Your task to perform on an android device: Go to wifi settings Image 0: 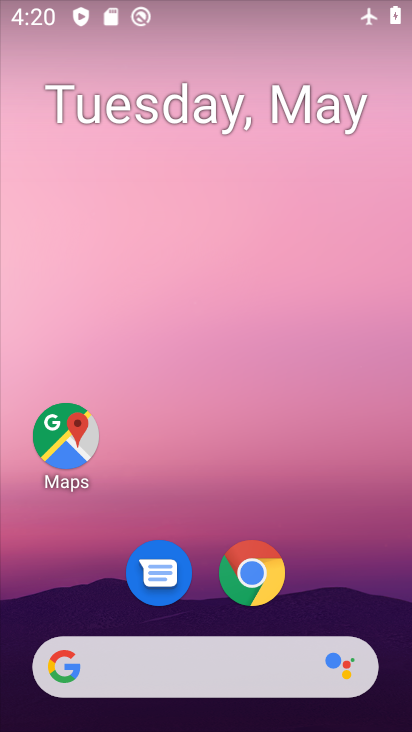
Step 0: drag from (310, 469) to (279, 168)
Your task to perform on an android device: Go to wifi settings Image 1: 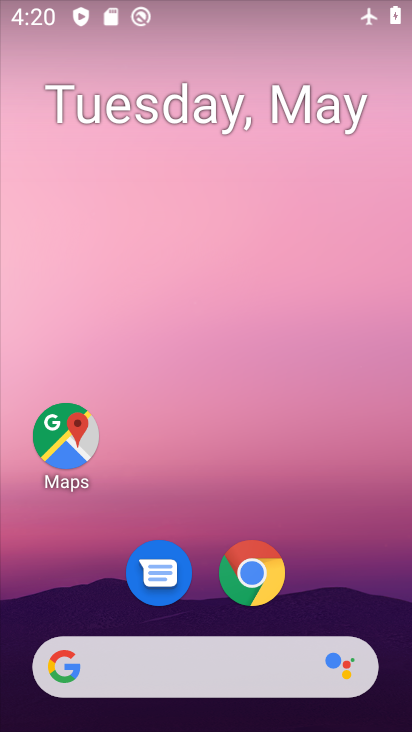
Step 1: drag from (303, 478) to (274, 104)
Your task to perform on an android device: Go to wifi settings Image 2: 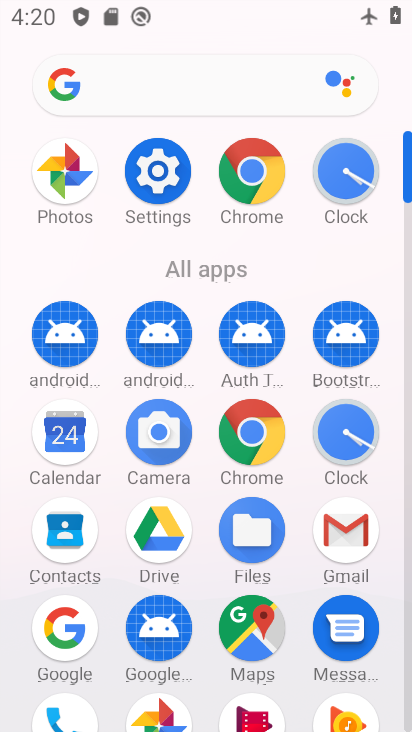
Step 2: click (164, 159)
Your task to perform on an android device: Go to wifi settings Image 3: 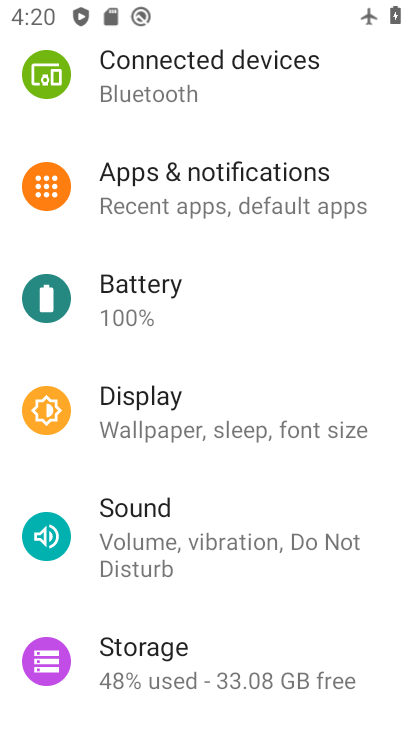
Step 3: drag from (232, 129) to (241, 499)
Your task to perform on an android device: Go to wifi settings Image 4: 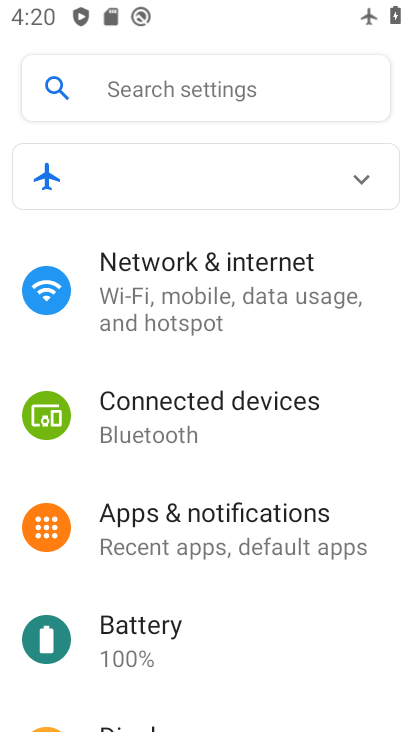
Step 4: click (221, 302)
Your task to perform on an android device: Go to wifi settings Image 5: 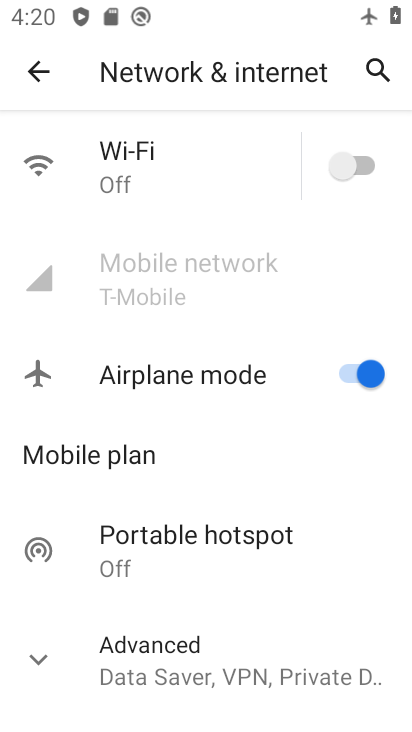
Step 5: click (220, 170)
Your task to perform on an android device: Go to wifi settings Image 6: 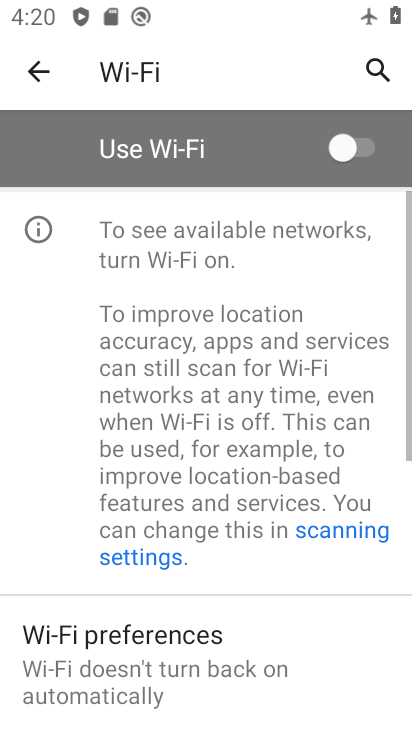
Step 6: click (332, 178)
Your task to perform on an android device: Go to wifi settings Image 7: 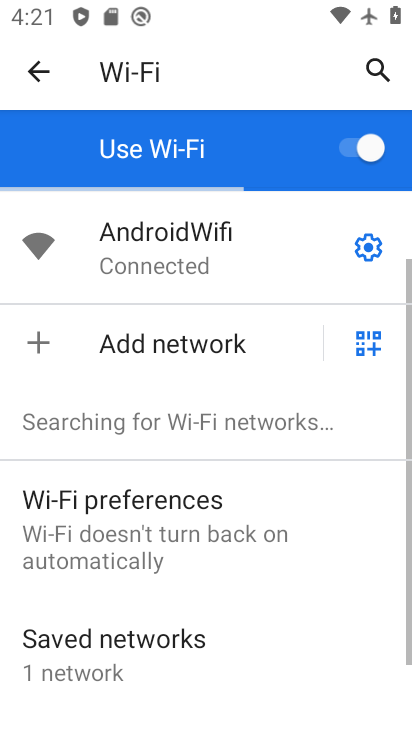
Step 7: click (364, 258)
Your task to perform on an android device: Go to wifi settings Image 8: 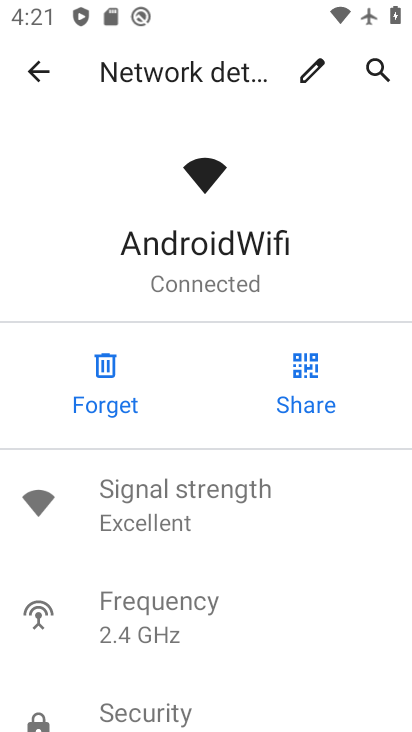
Step 8: task complete